Your task to perform on an android device: Show me the alarms in the clock app Image 0: 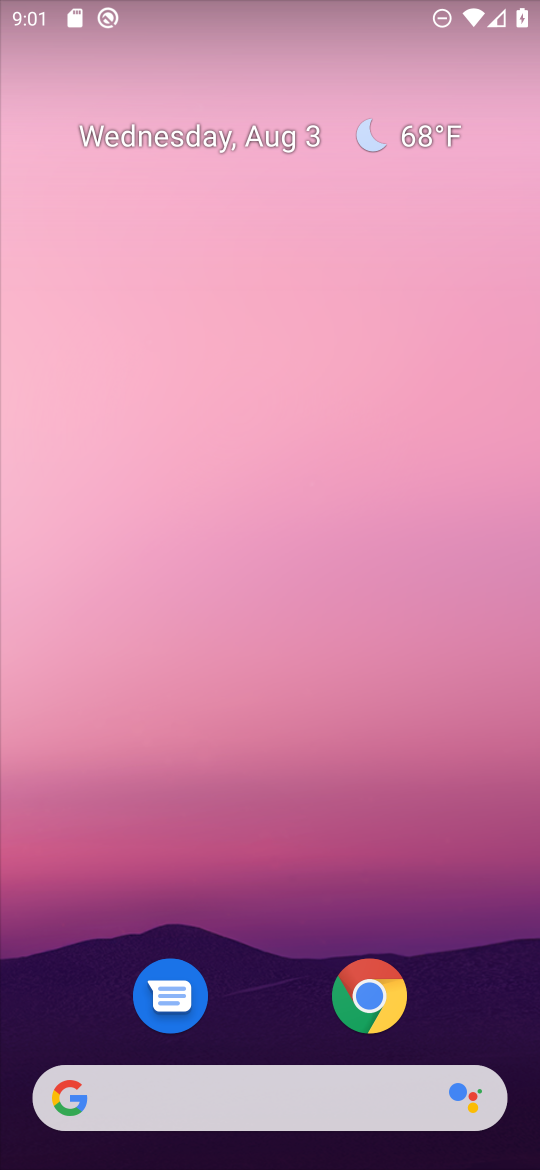
Step 0: drag from (293, 894) to (292, 2)
Your task to perform on an android device: Show me the alarms in the clock app Image 1: 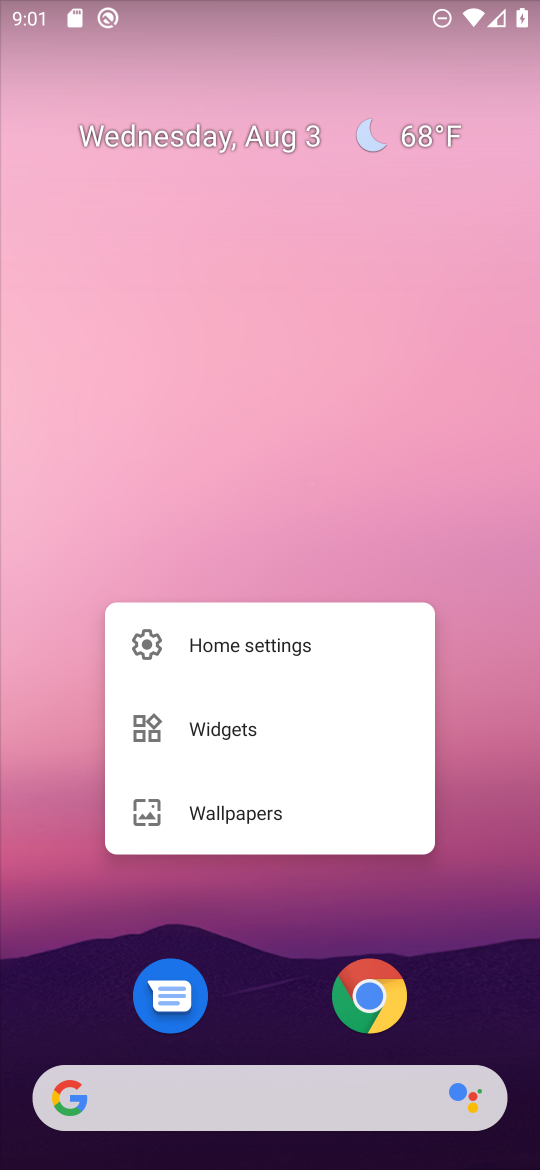
Step 1: click (423, 452)
Your task to perform on an android device: Show me the alarms in the clock app Image 2: 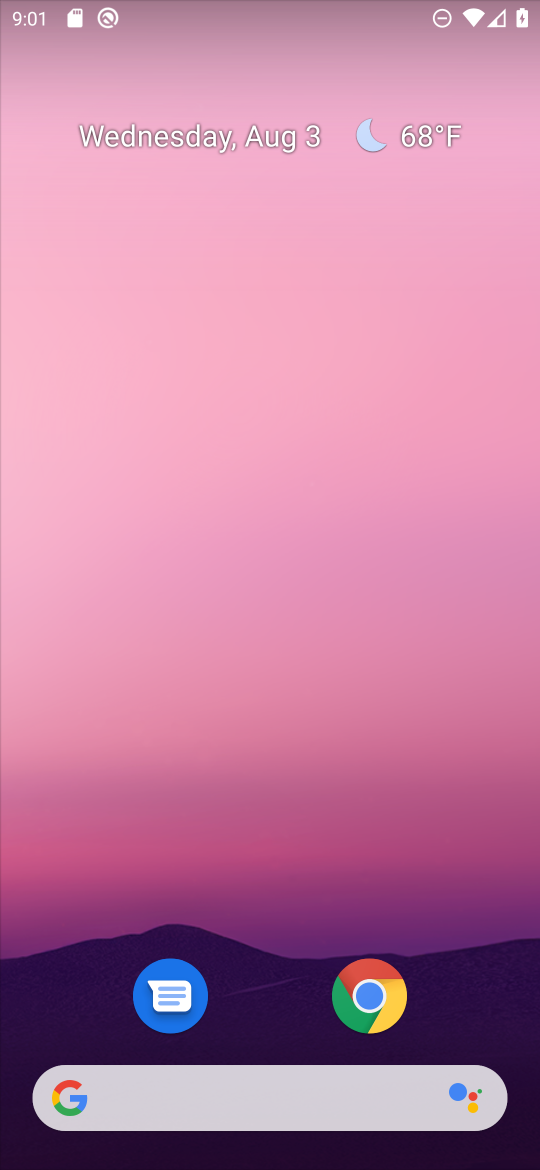
Step 2: drag from (294, 999) to (280, 0)
Your task to perform on an android device: Show me the alarms in the clock app Image 3: 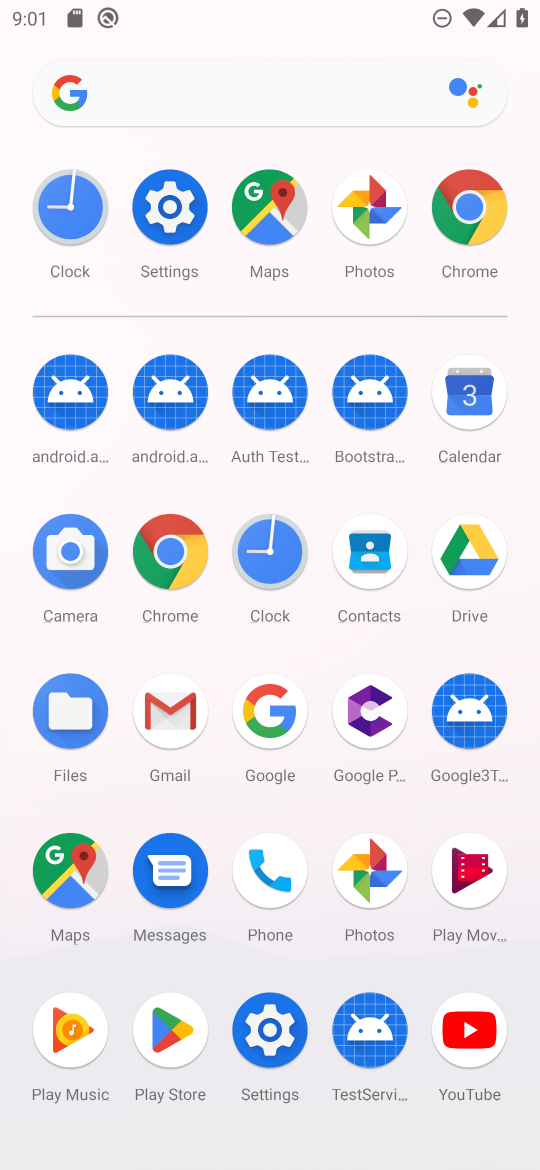
Step 3: click (86, 220)
Your task to perform on an android device: Show me the alarms in the clock app Image 4: 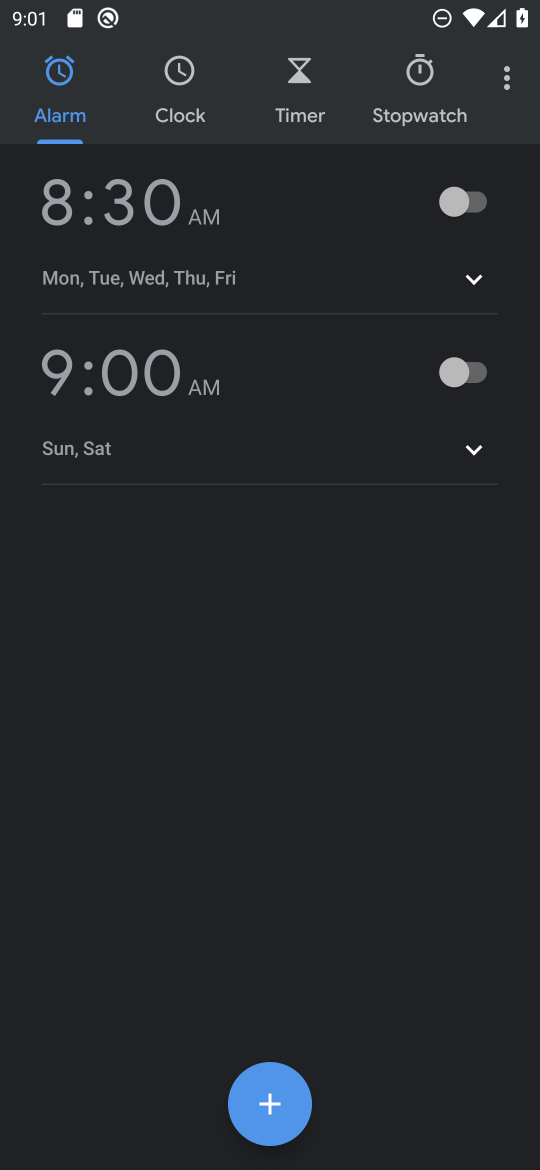
Step 4: task complete